Your task to perform on an android device: What's the weather going to be this weekend? Image 0: 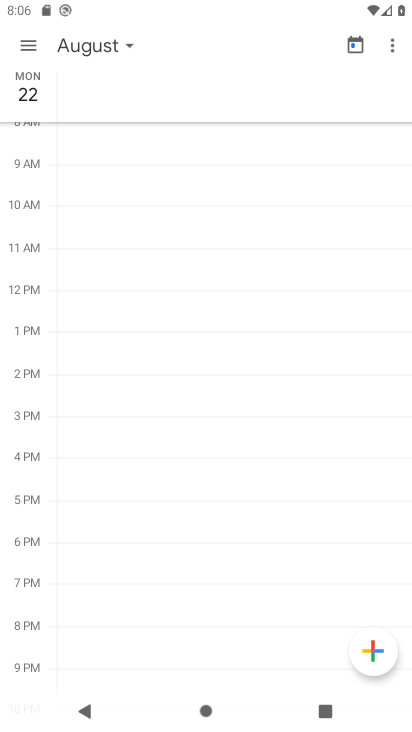
Step 0: press home button
Your task to perform on an android device: What's the weather going to be this weekend? Image 1: 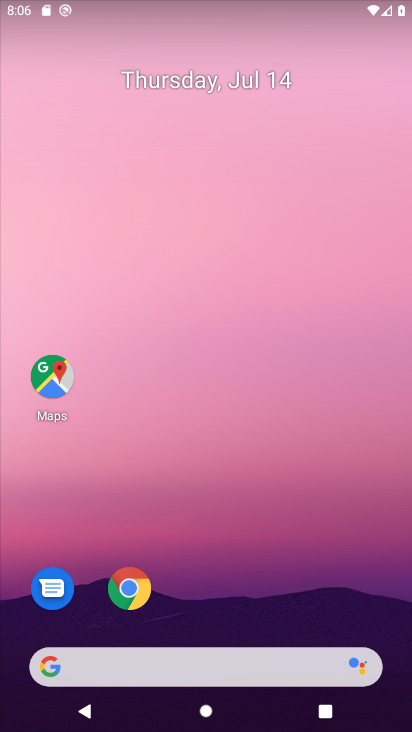
Step 1: click (248, 669)
Your task to perform on an android device: What's the weather going to be this weekend? Image 2: 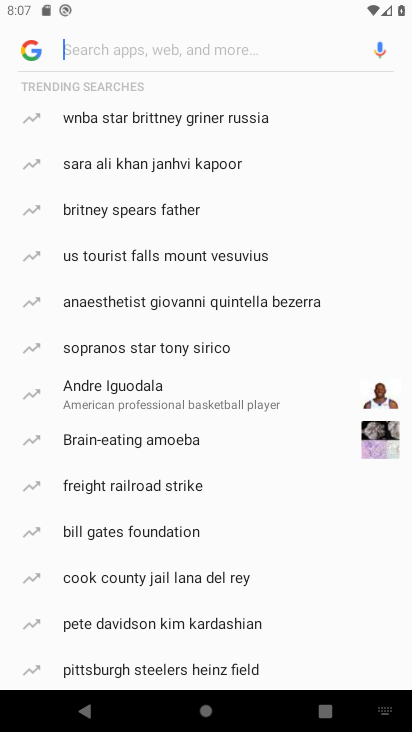
Step 2: type "weather"
Your task to perform on an android device: What's the weather going to be this weekend? Image 3: 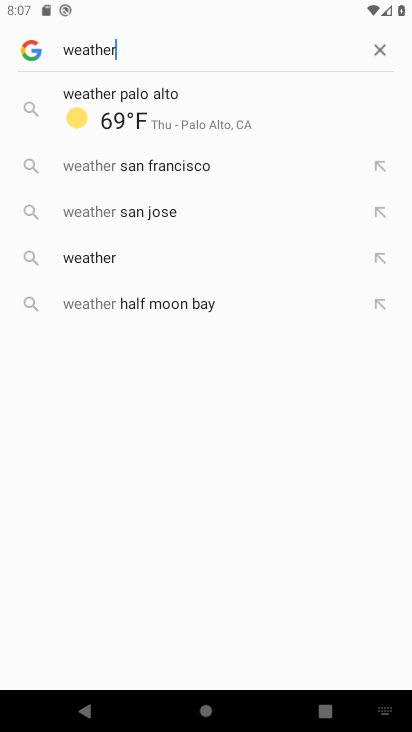
Step 3: click (193, 122)
Your task to perform on an android device: What's the weather going to be this weekend? Image 4: 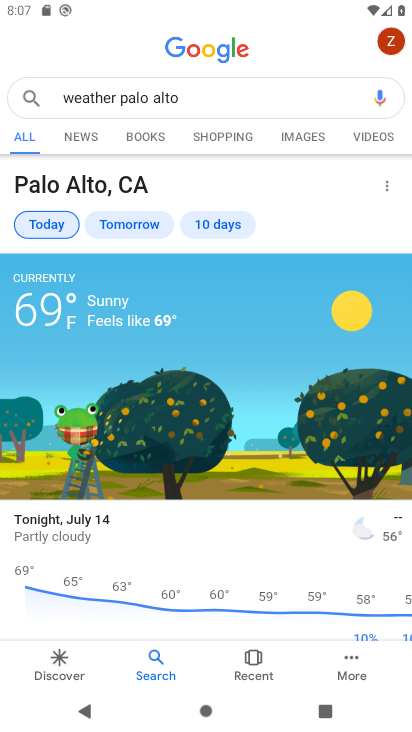
Step 4: click (223, 225)
Your task to perform on an android device: What's the weather going to be this weekend? Image 5: 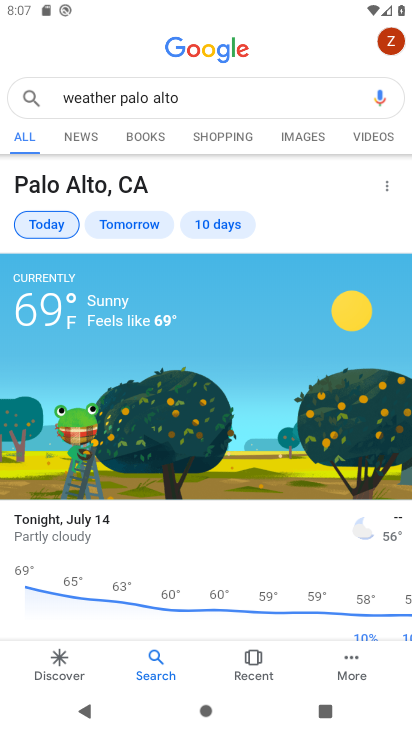
Step 5: click (233, 225)
Your task to perform on an android device: What's the weather going to be this weekend? Image 6: 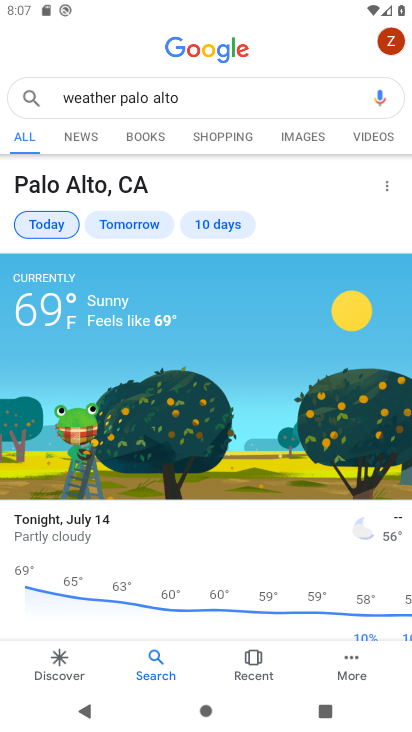
Step 6: click (233, 225)
Your task to perform on an android device: What's the weather going to be this weekend? Image 7: 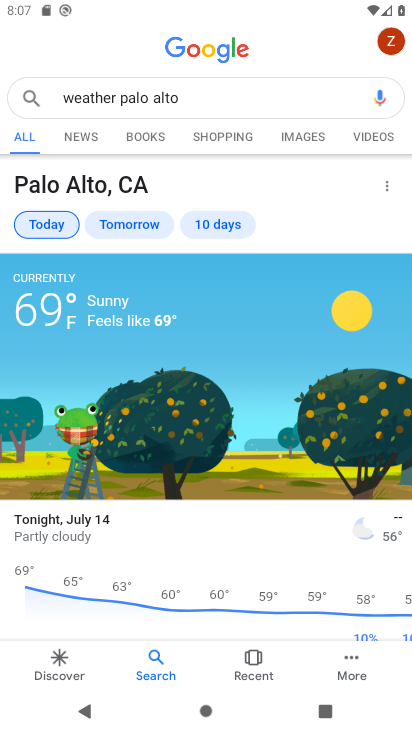
Step 7: drag from (268, 436) to (289, 275)
Your task to perform on an android device: What's the weather going to be this weekend? Image 8: 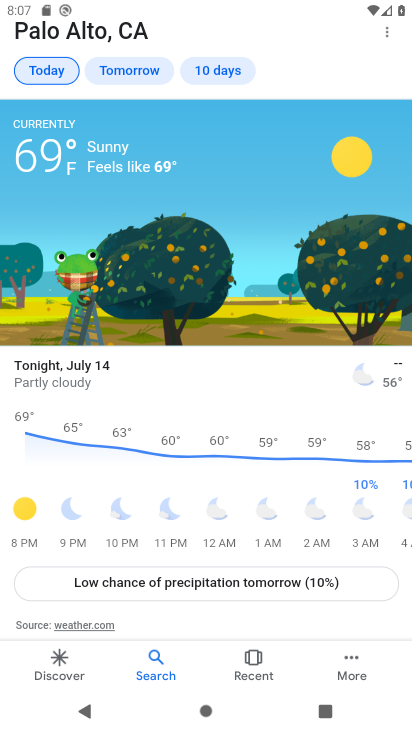
Step 8: drag from (241, 197) to (243, 377)
Your task to perform on an android device: What's the weather going to be this weekend? Image 9: 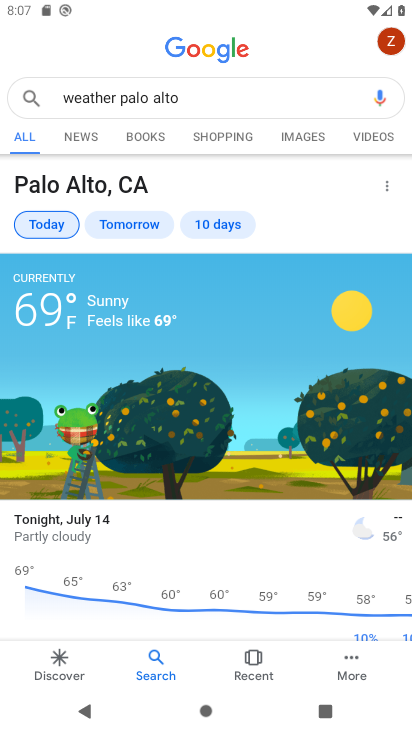
Step 9: click (218, 220)
Your task to perform on an android device: What's the weather going to be this weekend? Image 10: 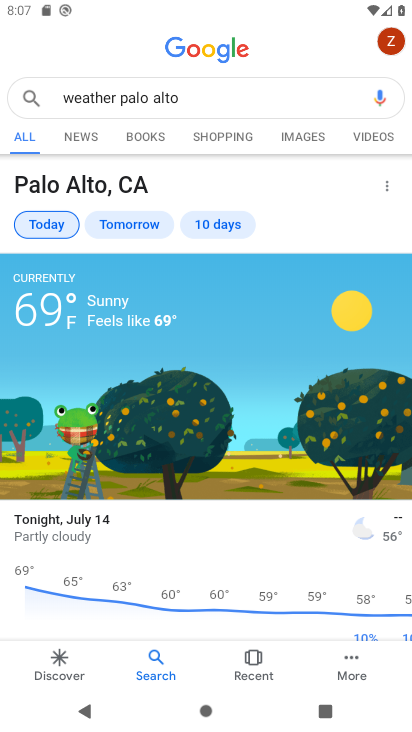
Step 10: click (217, 217)
Your task to perform on an android device: What's the weather going to be this weekend? Image 11: 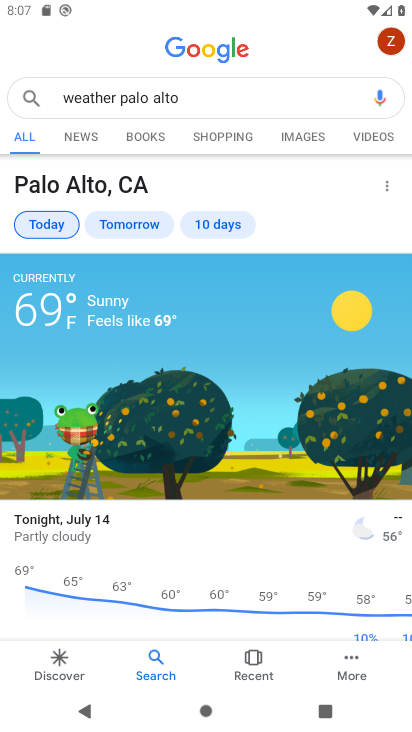
Step 11: click (217, 217)
Your task to perform on an android device: What's the weather going to be this weekend? Image 12: 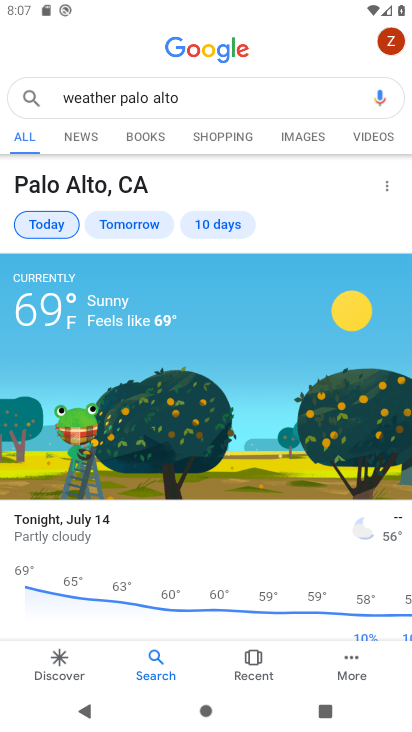
Step 12: task complete